Your task to perform on an android device: see tabs open on other devices in the chrome app Image 0: 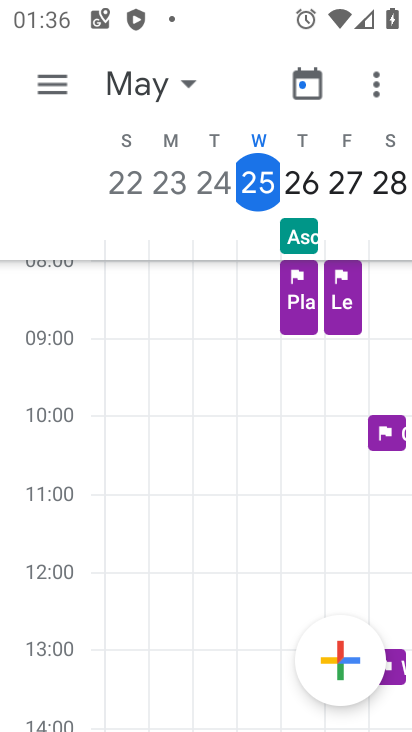
Step 0: press home button
Your task to perform on an android device: see tabs open on other devices in the chrome app Image 1: 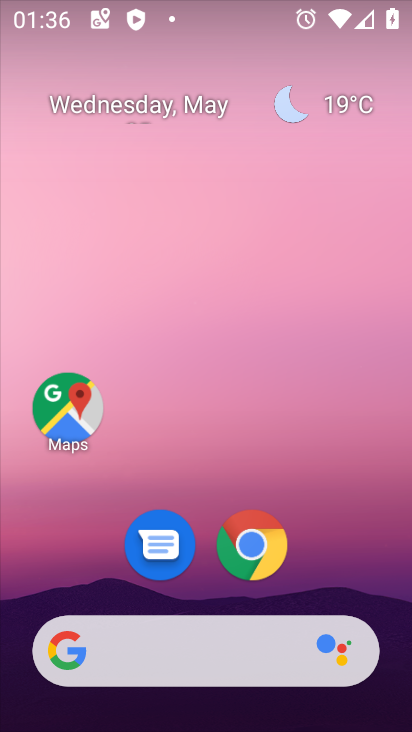
Step 1: click (251, 536)
Your task to perform on an android device: see tabs open on other devices in the chrome app Image 2: 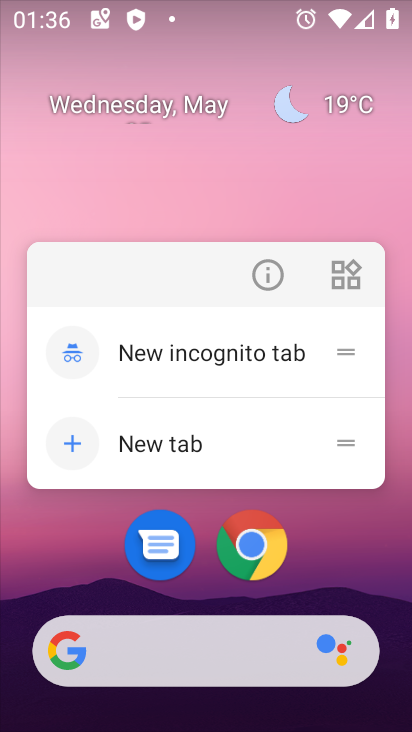
Step 2: click (249, 543)
Your task to perform on an android device: see tabs open on other devices in the chrome app Image 3: 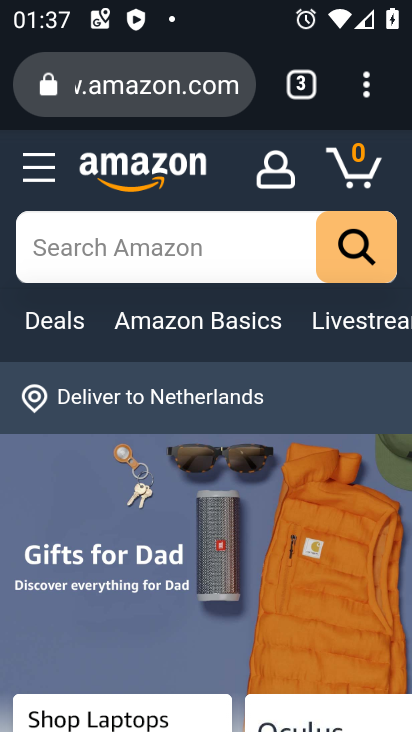
Step 3: click (380, 60)
Your task to perform on an android device: see tabs open on other devices in the chrome app Image 4: 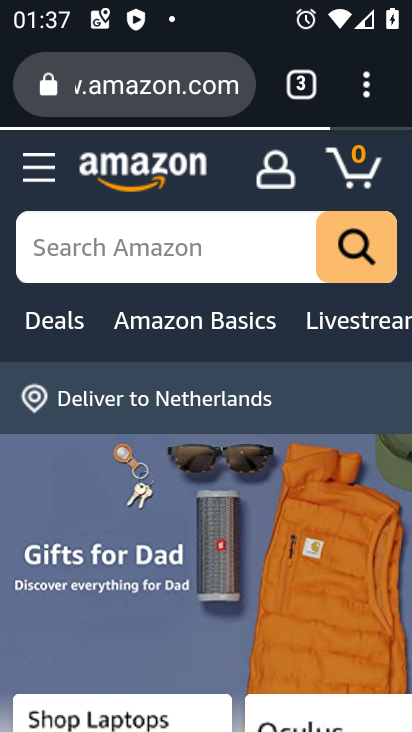
Step 4: task complete